Your task to perform on an android device: Add "razer deathadder" to the cart on amazon, then select checkout. Image 0: 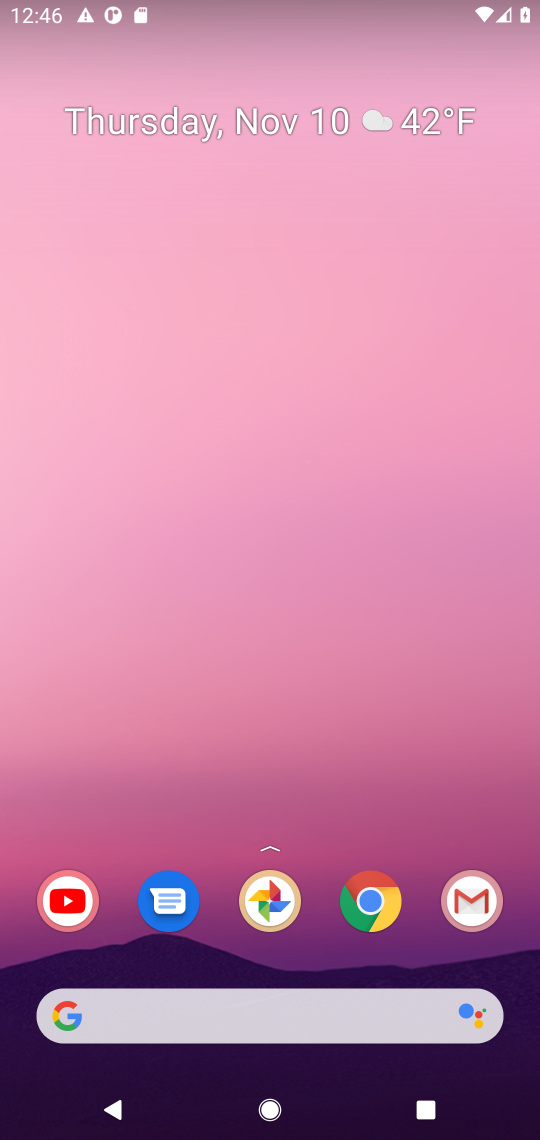
Step 0: drag from (46, 7) to (11, 486)
Your task to perform on an android device: Add "razer deathadder" to the cart on amazon, then select checkout. Image 1: 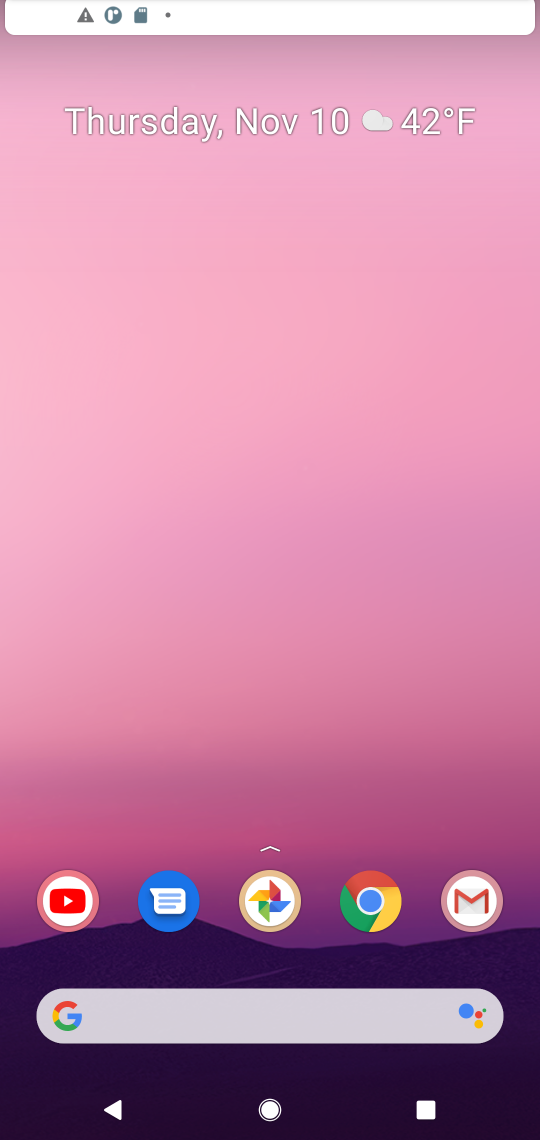
Step 1: drag from (248, 929) to (226, 29)
Your task to perform on an android device: Add "razer deathadder" to the cart on amazon, then select checkout. Image 2: 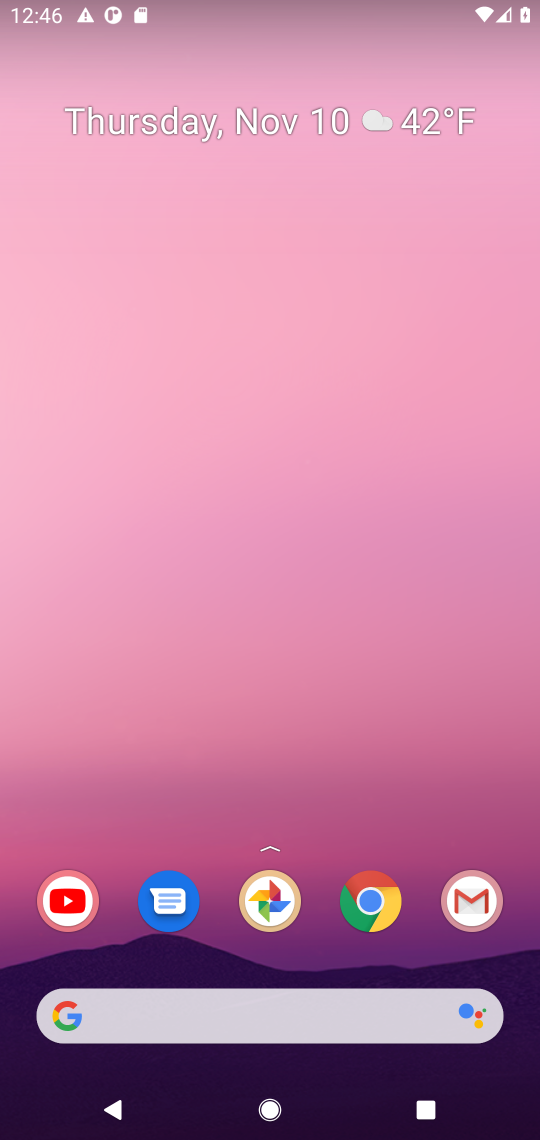
Step 2: drag from (258, 916) to (205, 340)
Your task to perform on an android device: Add "razer deathadder" to the cart on amazon, then select checkout. Image 3: 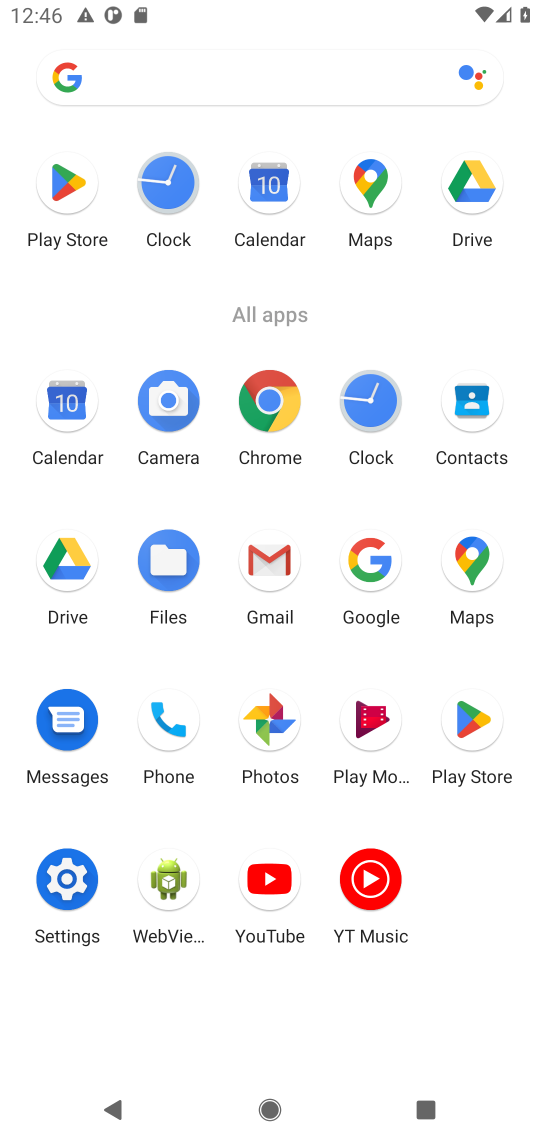
Step 3: click (276, 411)
Your task to perform on an android device: Add "razer deathadder" to the cart on amazon, then select checkout. Image 4: 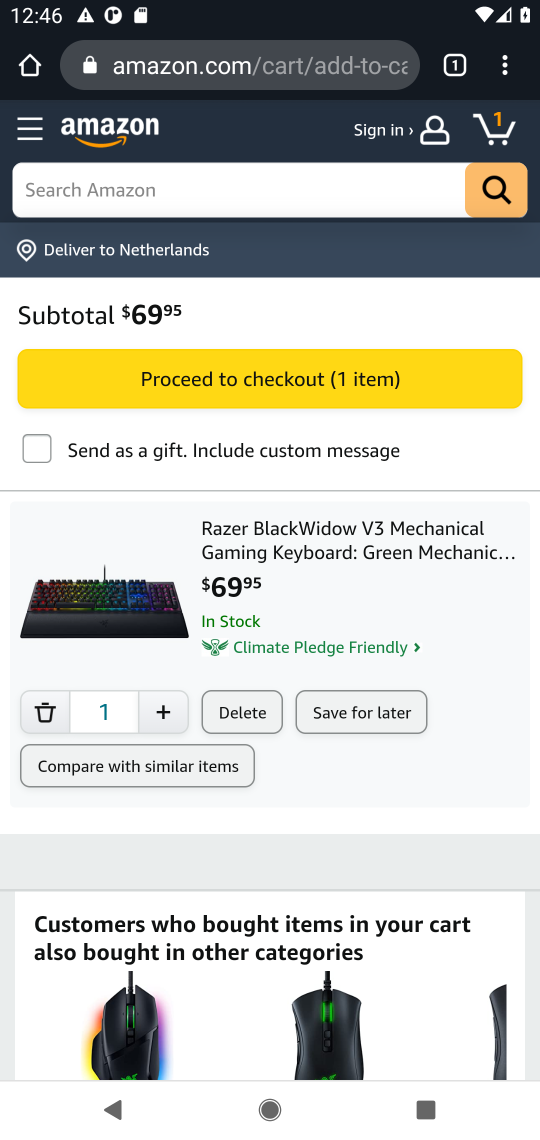
Step 4: click (177, 63)
Your task to perform on an android device: Add "razer deathadder" to the cart on amazon, then select checkout. Image 5: 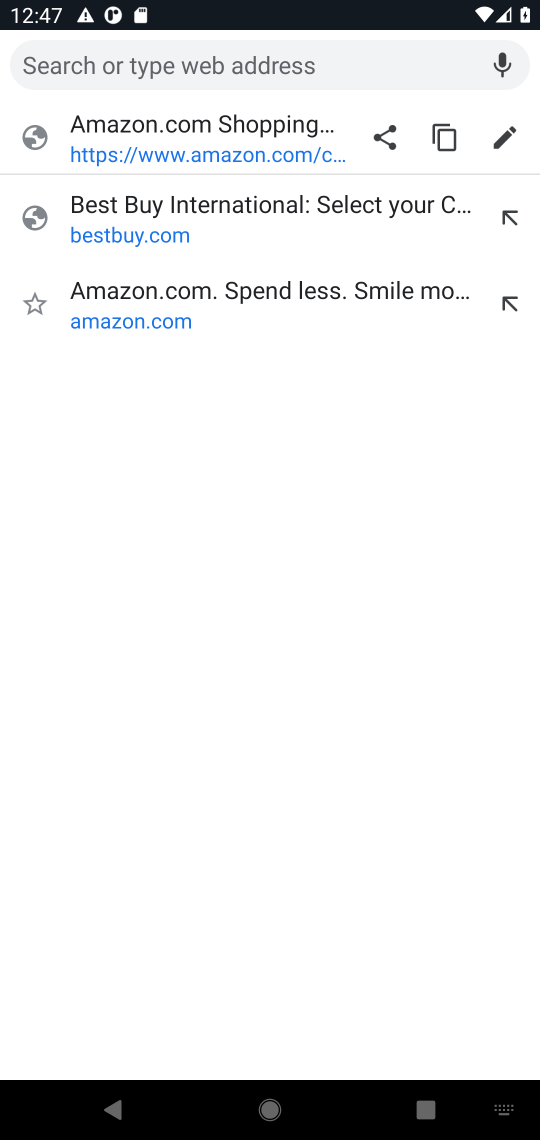
Step 5: type "amazon"
Your task to perform on an android device: Add "razer deathadder" to the cart on amazon, then select checkout. Image 6: 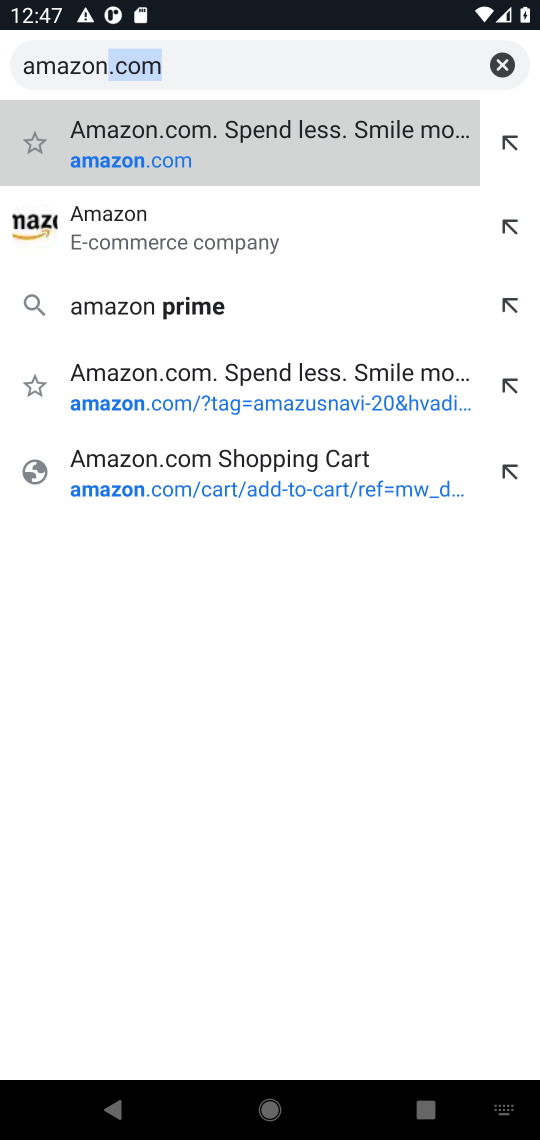
Step 6: press enter
Your task to perform on an android device: Add "razer deathadder" to the cart on amazon, then select checkout. Image 7: 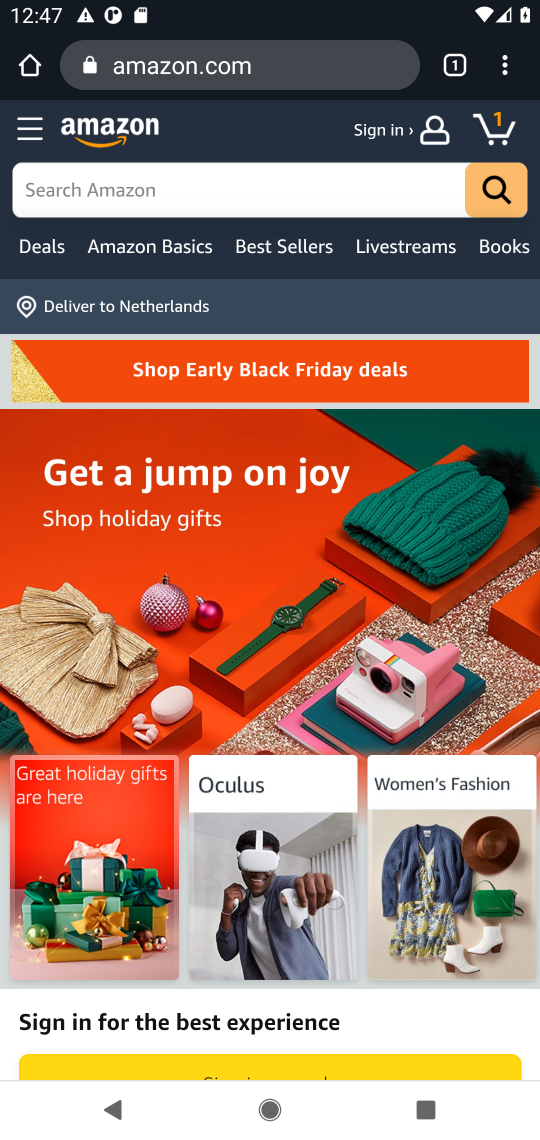
Step 7: click (221, 181)
Your task to perform on an android device: Add "razer deathadder" to the cart on amazon, then select checkout. Image 8: 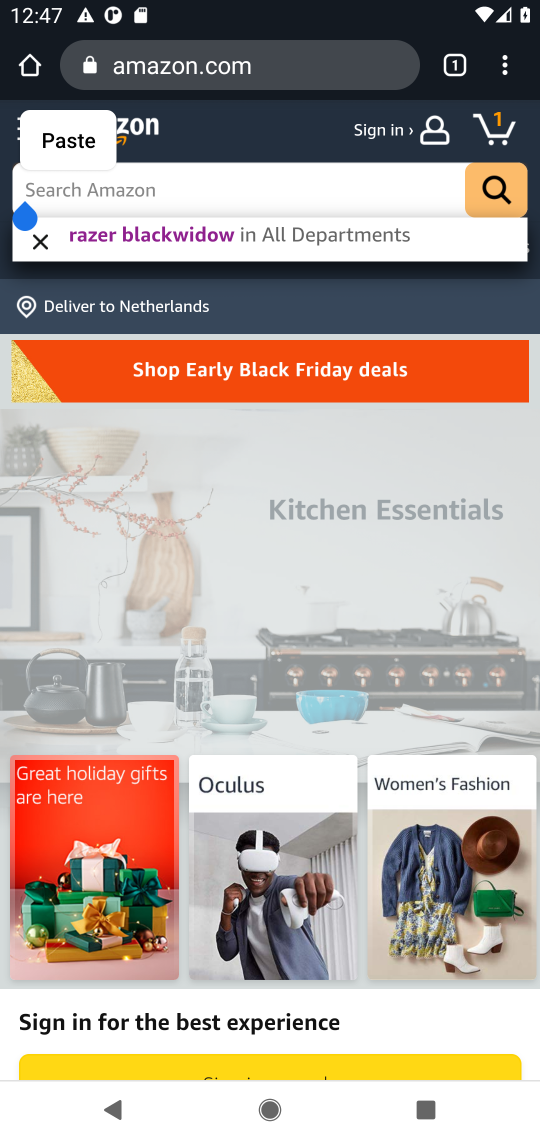
Step 8: click (63, 133)
Your task to perform on an android device: Add "razer deathadder" to the cart on amazon, then select checkout. Image 9: 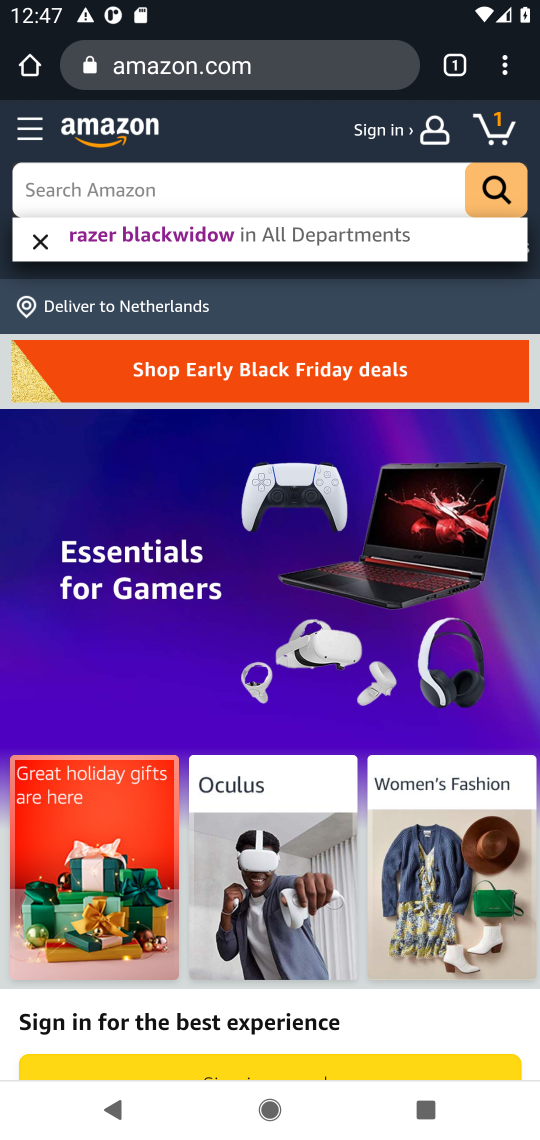
Step 9: type "razer deathadder"
Your task to perform on an android device: Add "razer deathadder" to the cart on amazon, then select checkout. Image 10: 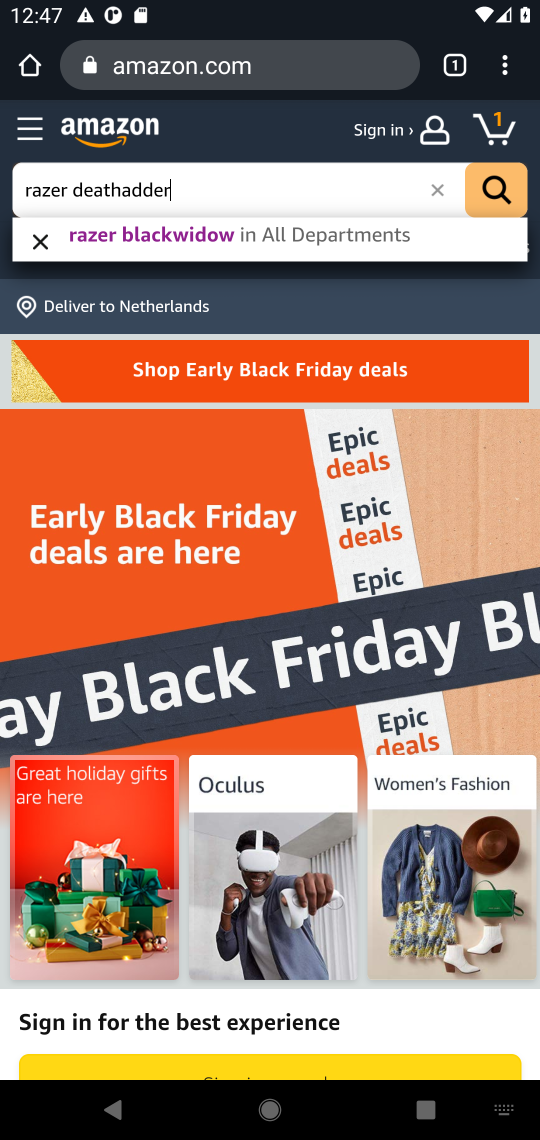
Step 10: press enter
Your task to perform on an android device: Add "razer deathadder" to the cart on amazon, then select checkout. Image 11: 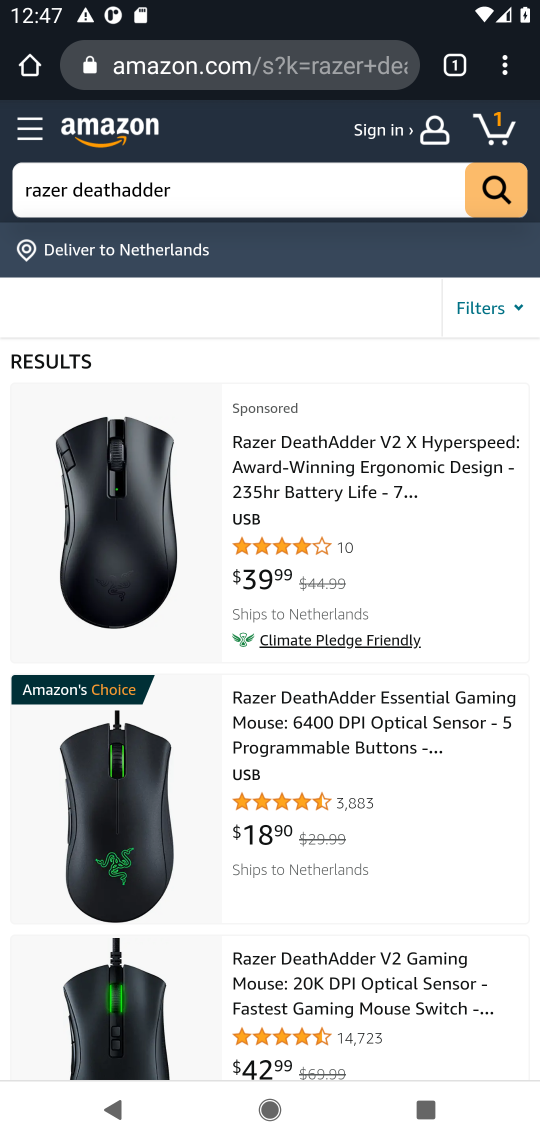
Step 11: click (250, 458)
Your task to perform on an android device: Add "razer deathadder" to the cart on amazon, then select checkout. Image 12: 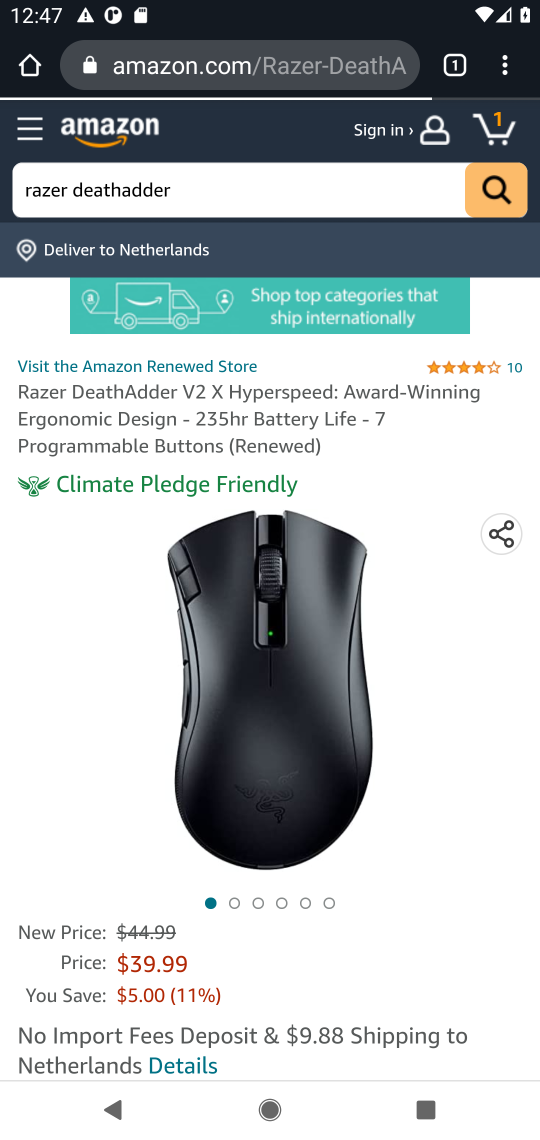
Step 12: drag from (321, 683) to (301, 228)
Your task to perform on an android device: Add "razer deathadder" to the cart on amazon, then select checkout. Image 13: 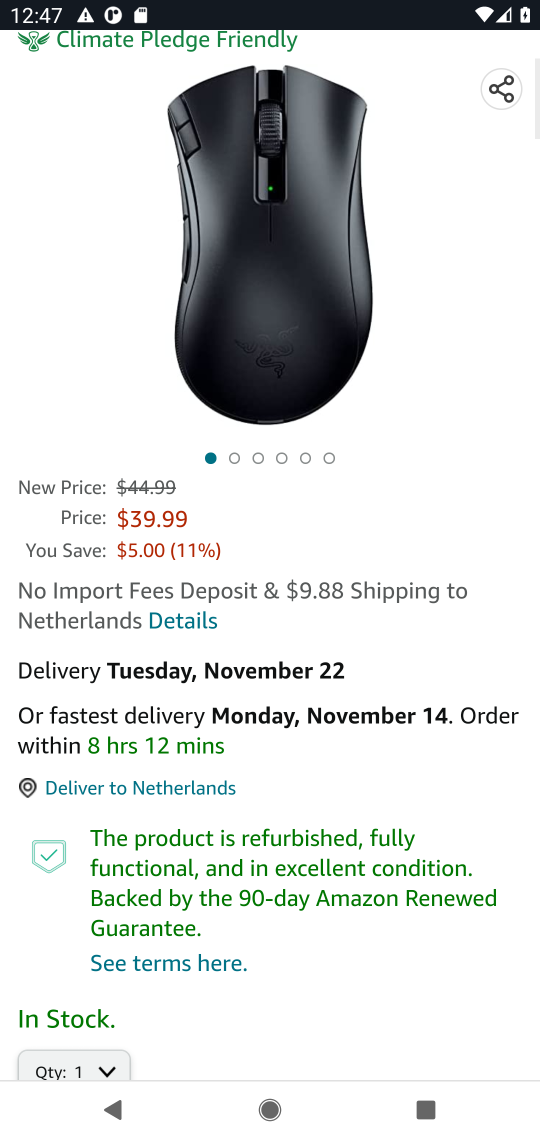
Step 13: drag from (246, 881) to (245, 523)
Your task to perform on an android device: Add "razer deathadder" to the cart on amazon, then select checkout. Image 14: 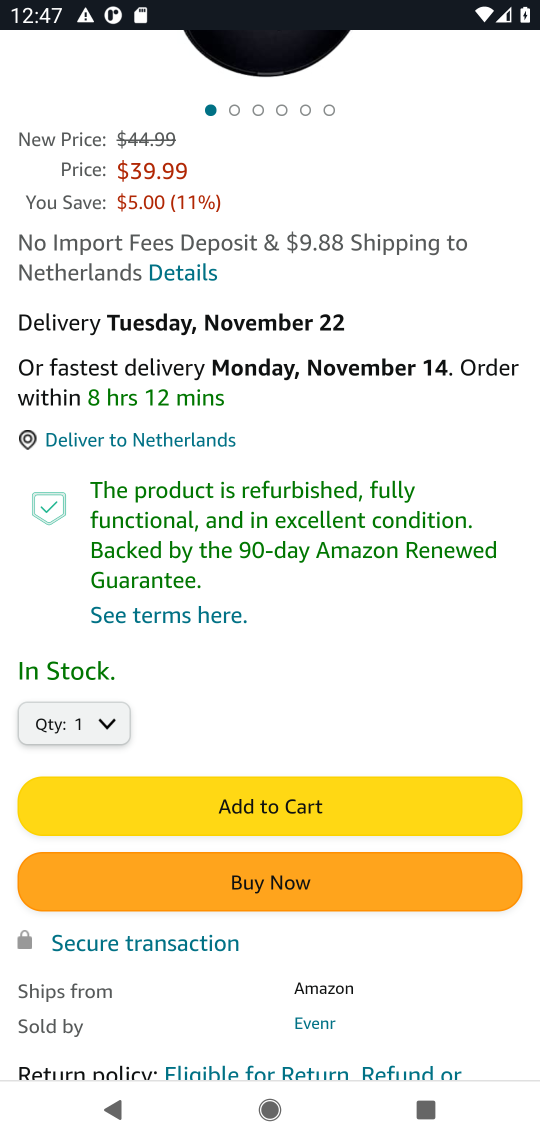
Step 14: click (275, 795)
Your task to perform on an android device: Add "razer deathadder" to the cart on amazon, then select checkout. Image 15: 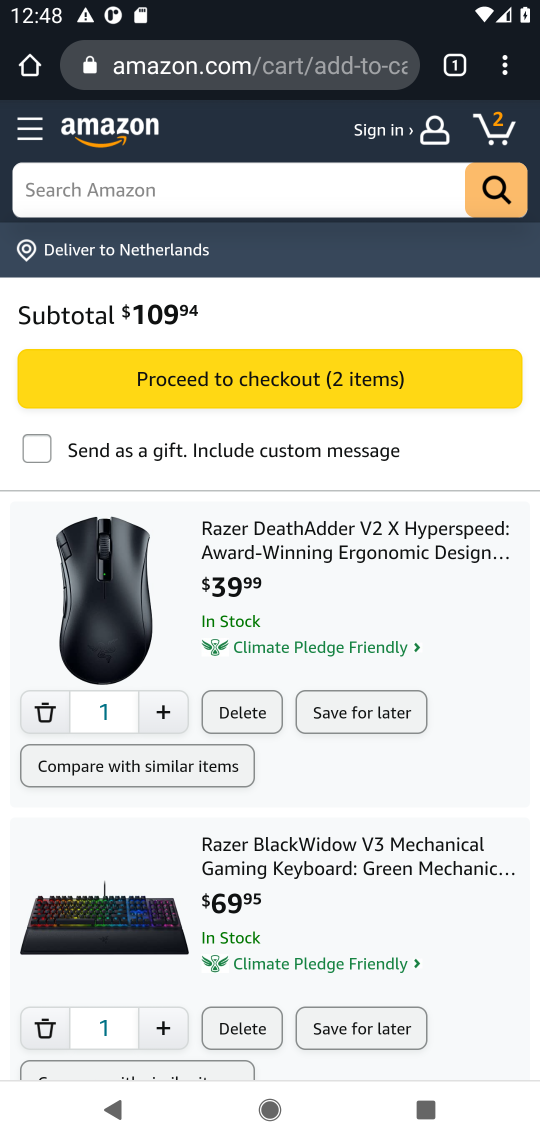
Step 15: click (255, 390)
Your task to perform on an android device: Add "razer deathadder" to the cart on amazon, then select checkout. Image 16: 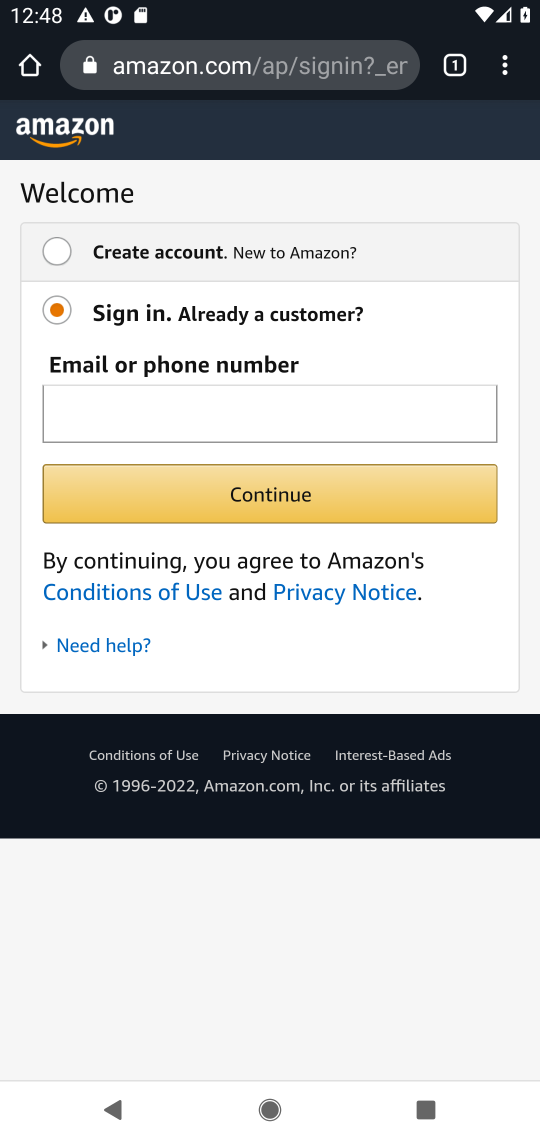
Step 16: task complete